Your task to perform on an android device: add a label to a message in the gmail app Image 0: 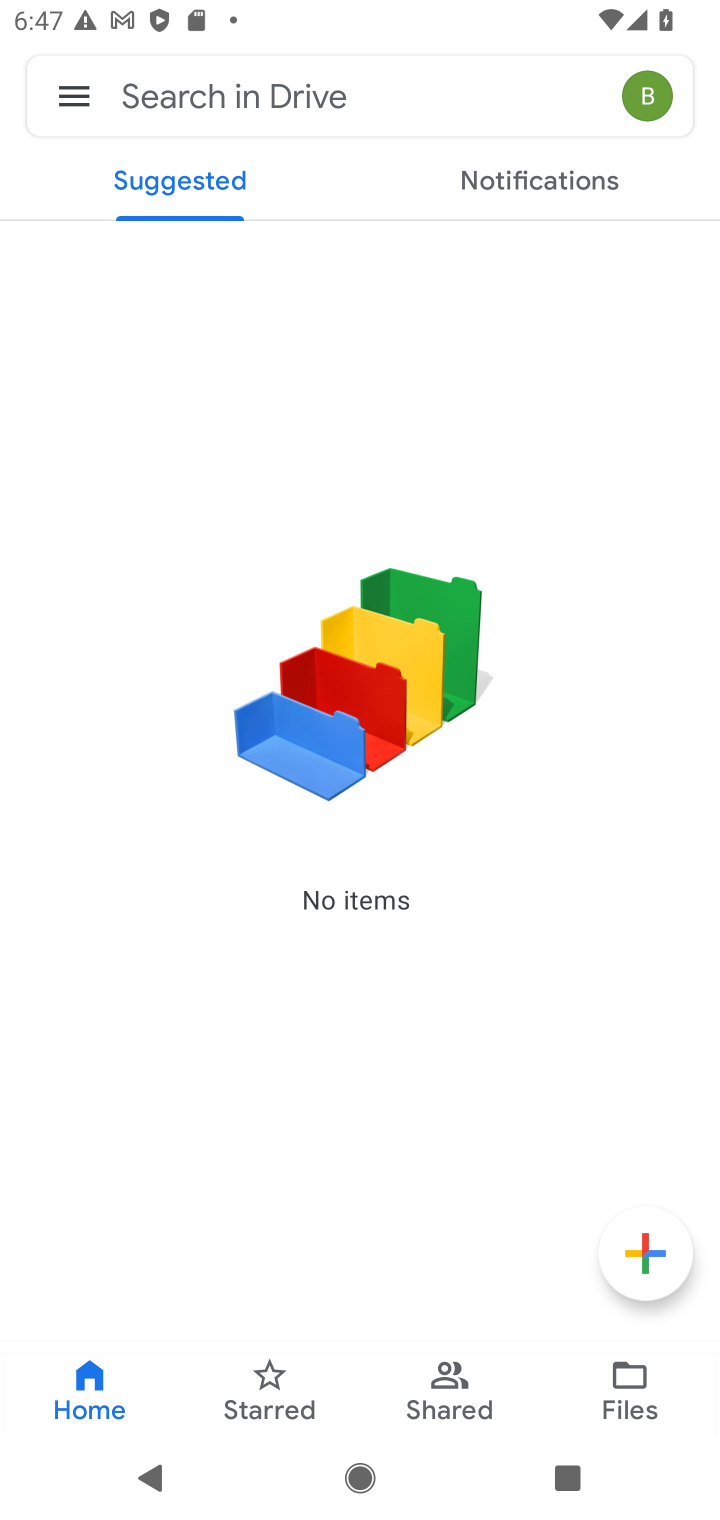
Step 0: press home button
Your task to perform on an android device: add a label to a message in the gmail app Image 1: 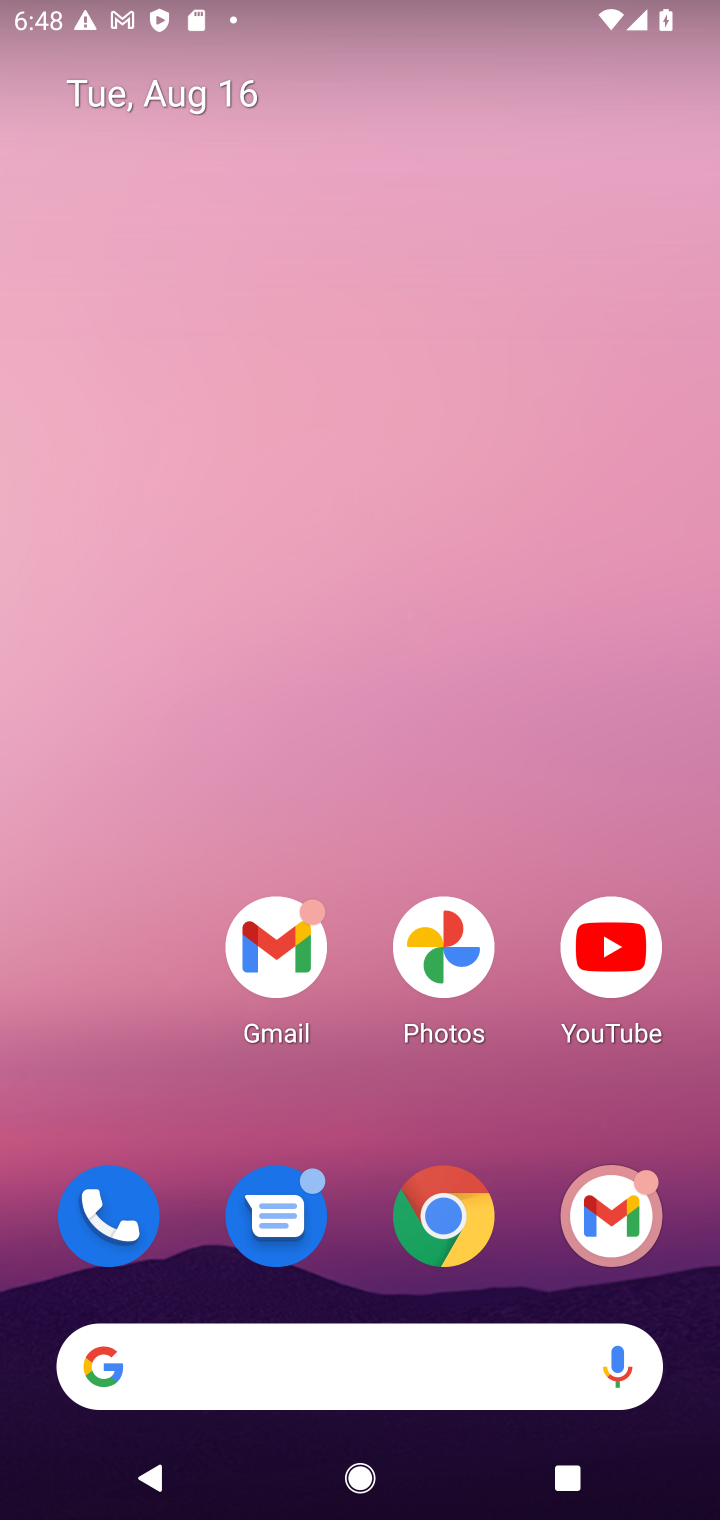
Step 1: drag from (172, 1079) to (166, 418)
Your task to perform on an android device: add a label to a message in the gmail app Image 2: 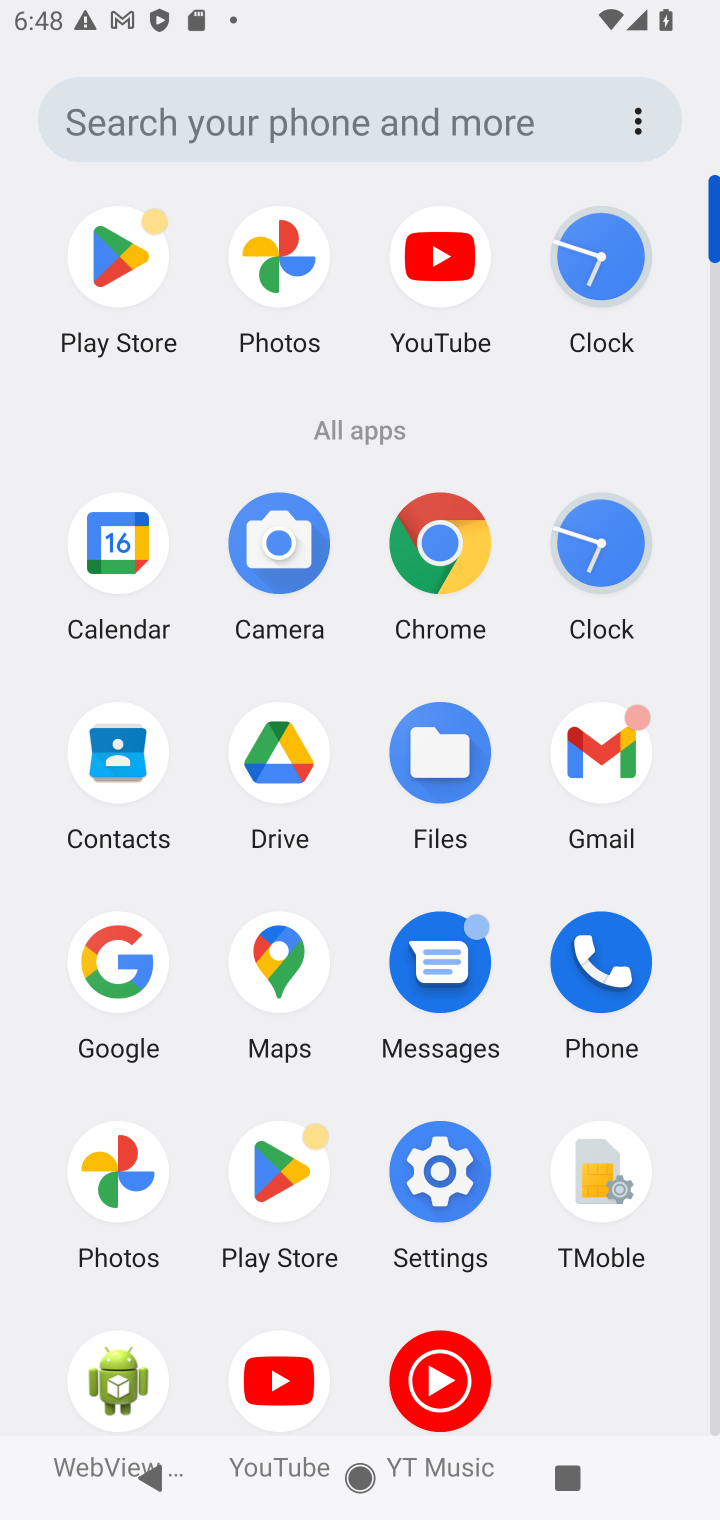
Step 2: click (602, 757)
Your task to perform on an android device: add a label to a message in the gmail app Image 3: 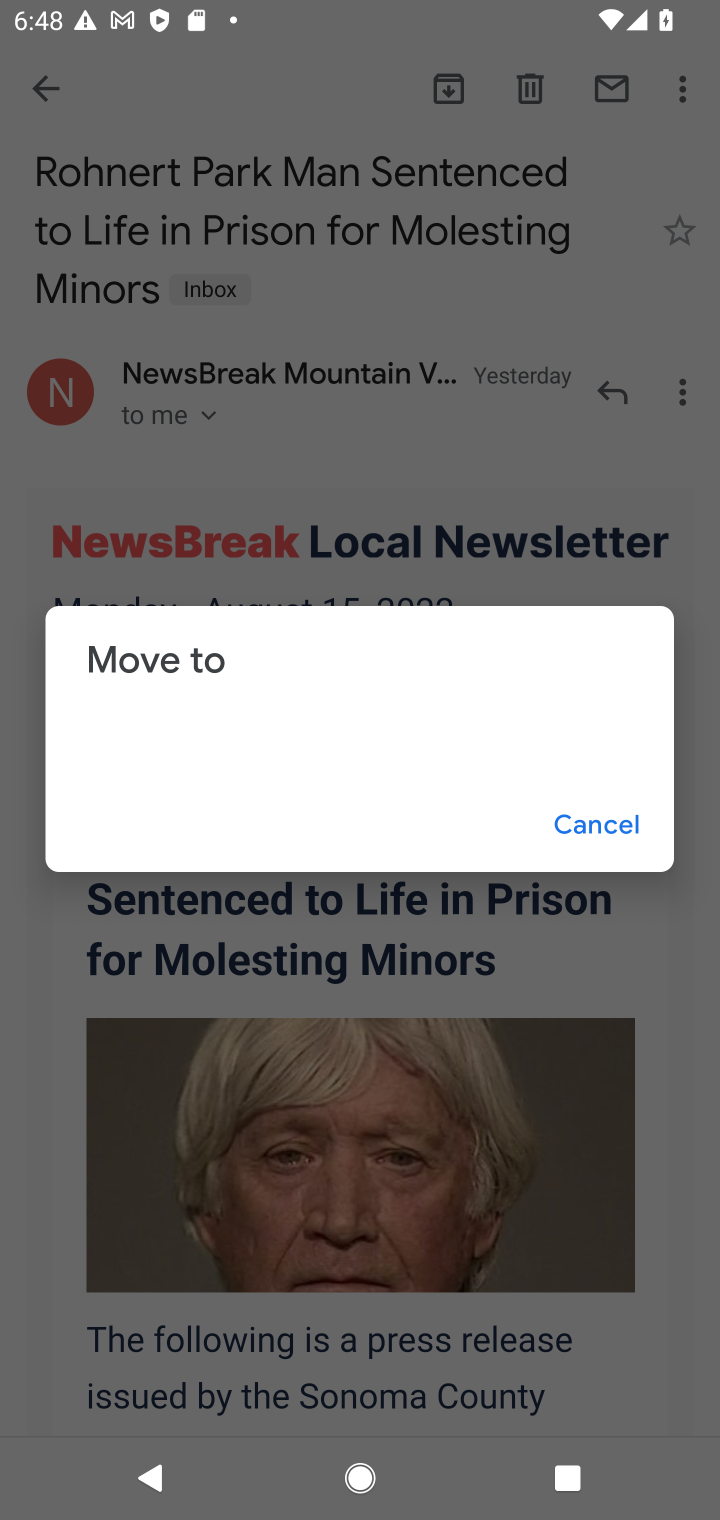
Step 3: press back button
Your task to perform on an android device: add a label to a message in the gmail app Image 4: 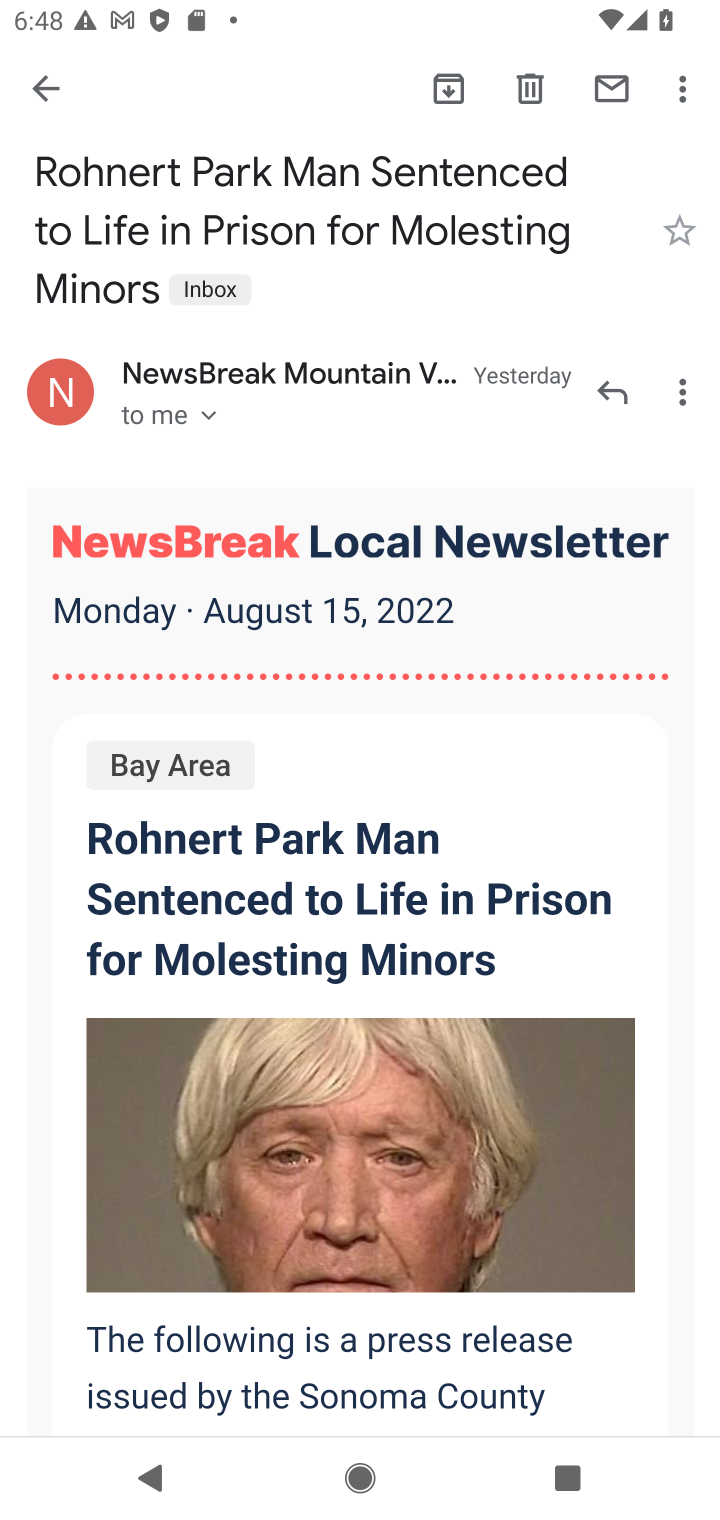
Step 4: click (220, 291)
Your task to perform on an android device: add a label to a message in the gmail app Image 5: 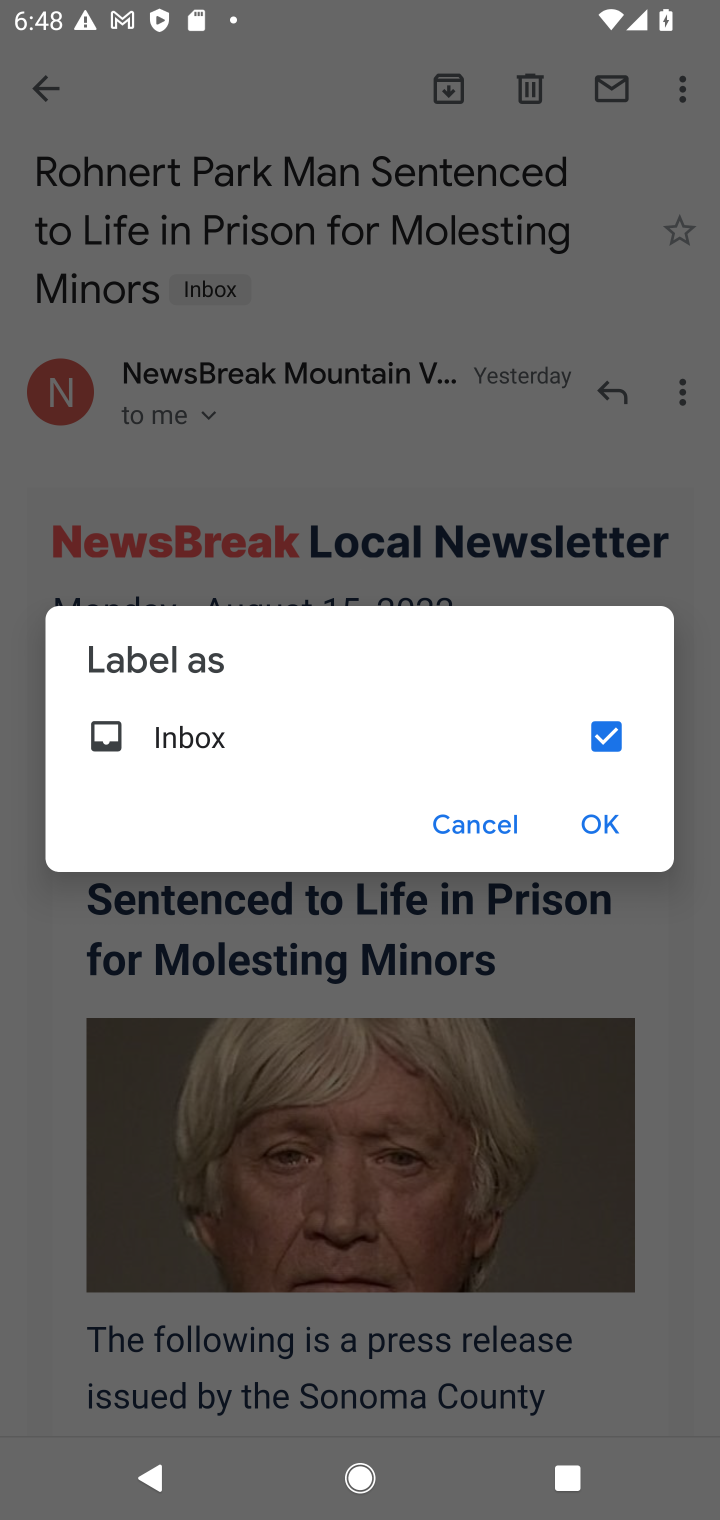
Step 5: click (601, 814)
Your task to perform on an android device: add a label to a message in the gmail app Image 6: 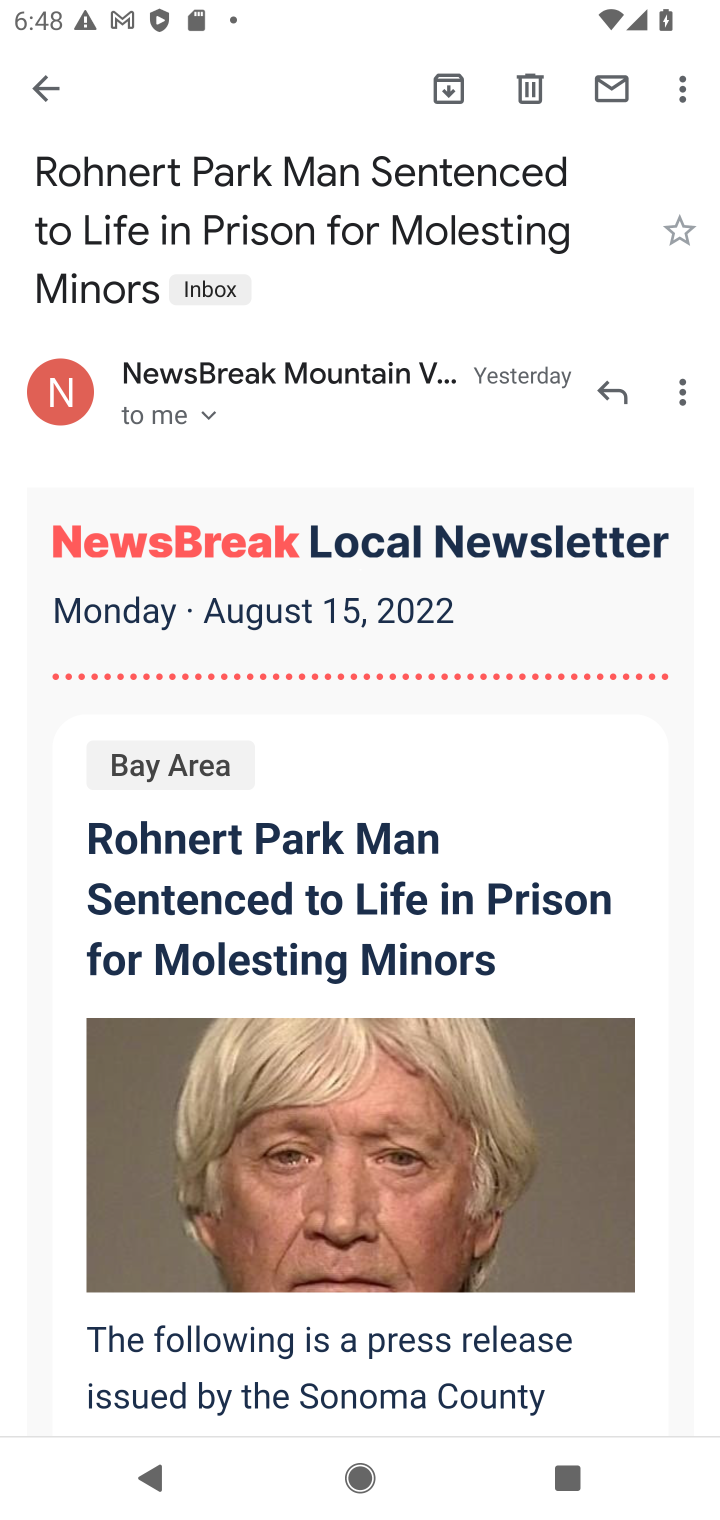
Step 6: click (53, 92)
Your task to perform on an android device: add a label to a message in the gmail app Image 7: 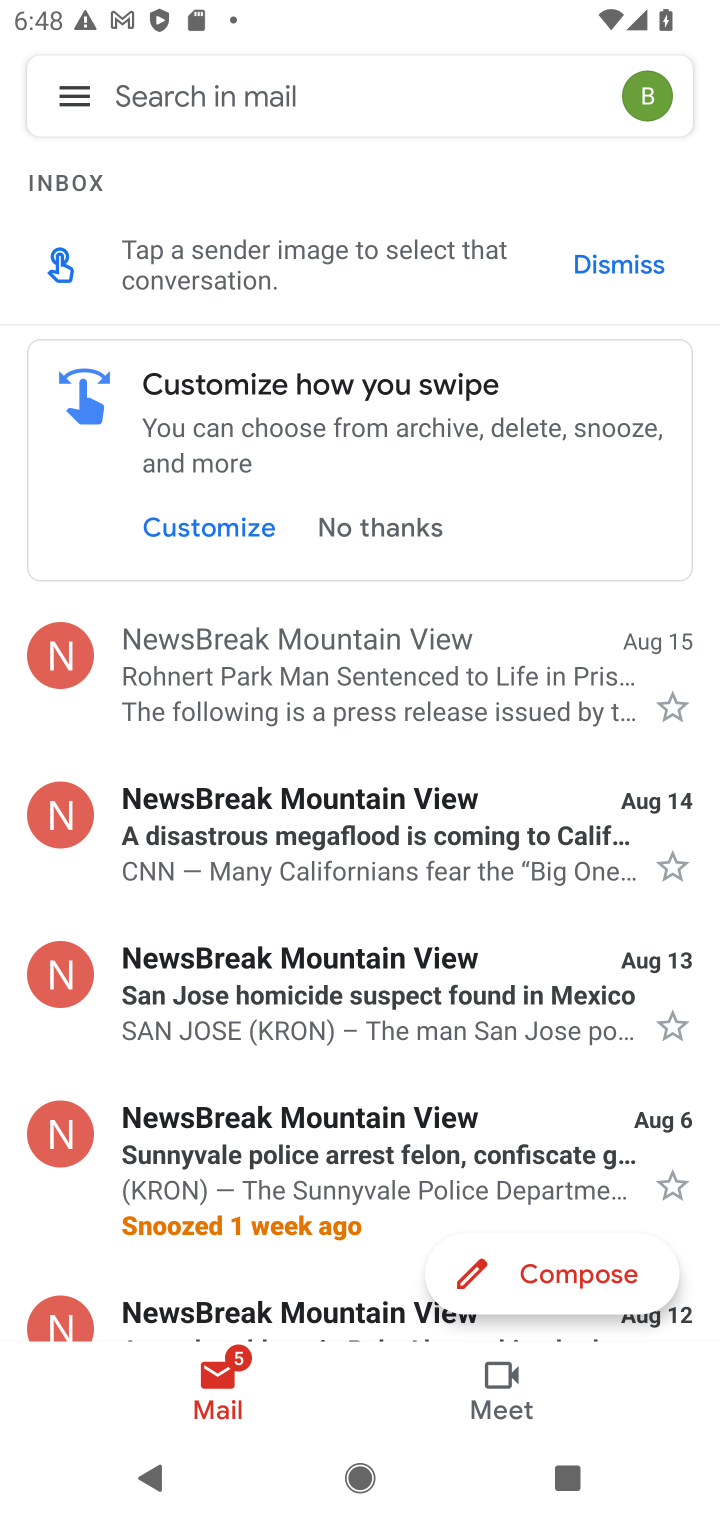
Step 7: click (371, 852)
Your task to perform on an android device: add a label to a message in the gmail app Image 8: 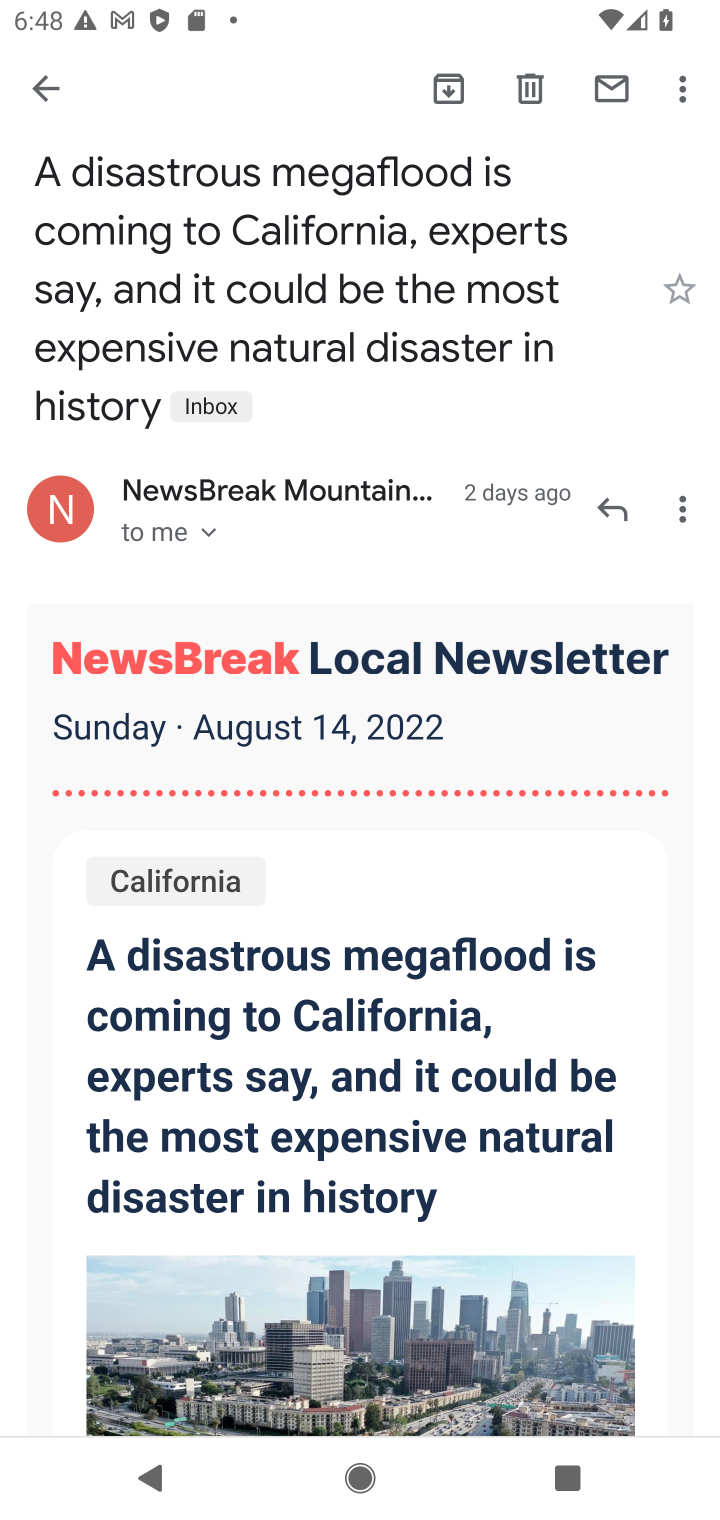
Step 8: task complete